Your task to perform on an android device: change the clock display to analog Image 0: 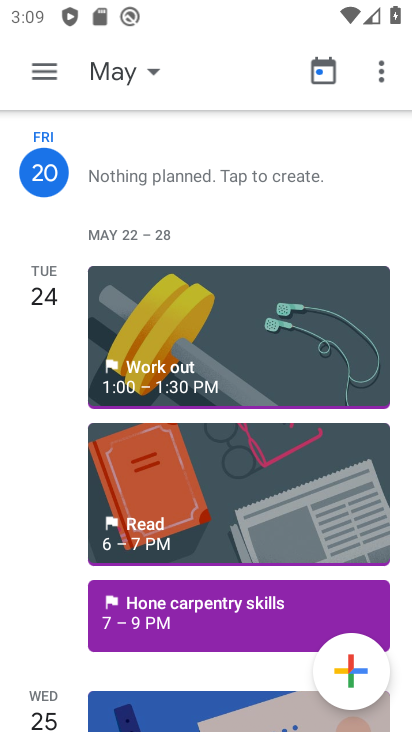
Step 0: press home button
Your task to perform on an android device: change the clock display to analog Image 1: 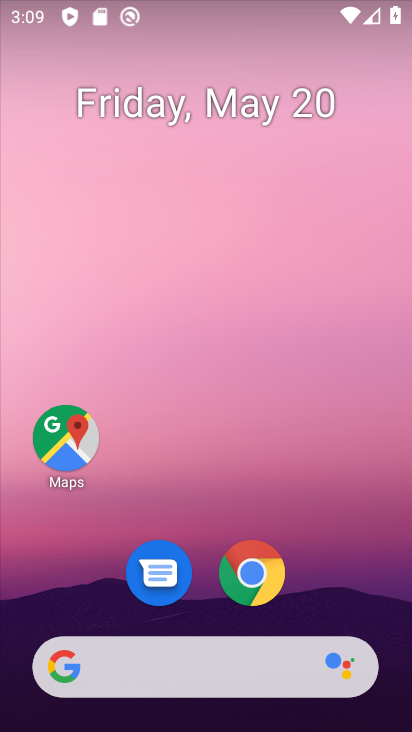
Step 1: drag from (232, 646) to (317, 73)
Your task to perform on an android device: change the clock display to analog Image 2: 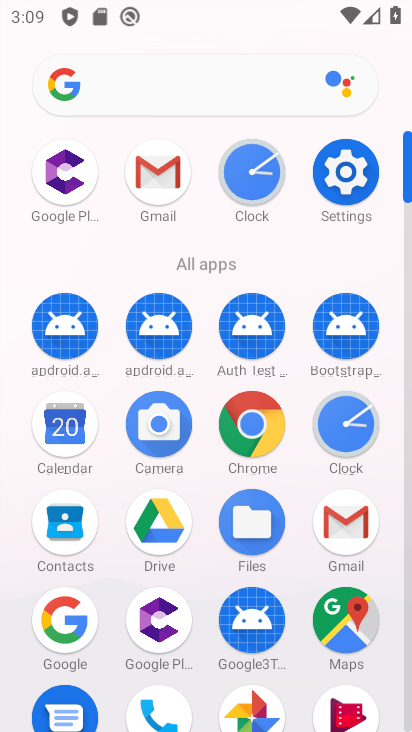
Step 2: click (350, 411)
Your task to perform on an android device: change the clock display to analog Image 3: 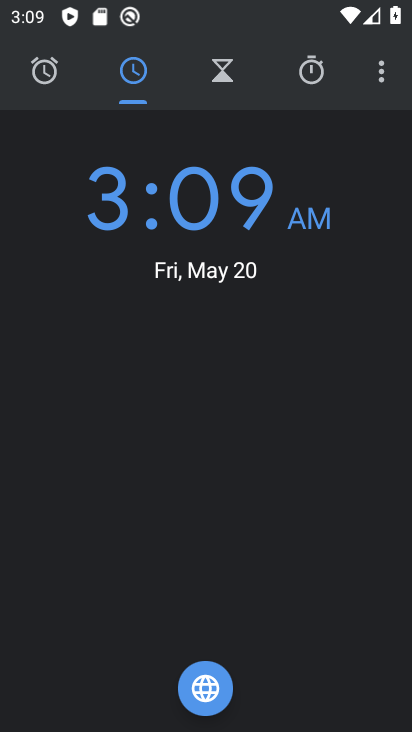
Step 3: click (379, 62)
Your task to perform on an android device: change the clock display to analog Image 4: 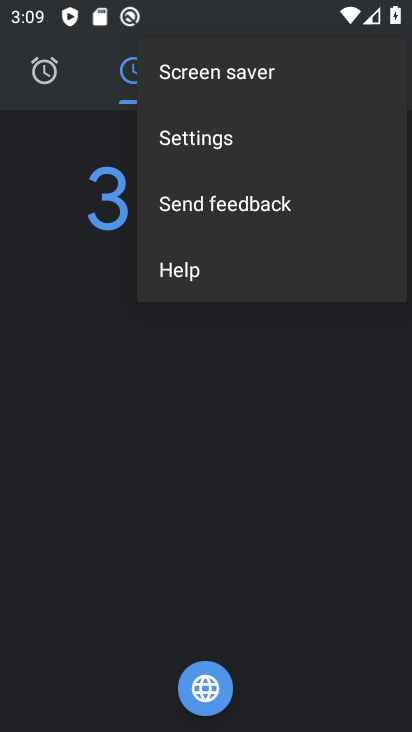
Step 4: click (156, 154)
Your task to perform on an android device: change the clock display to analog Image 5: 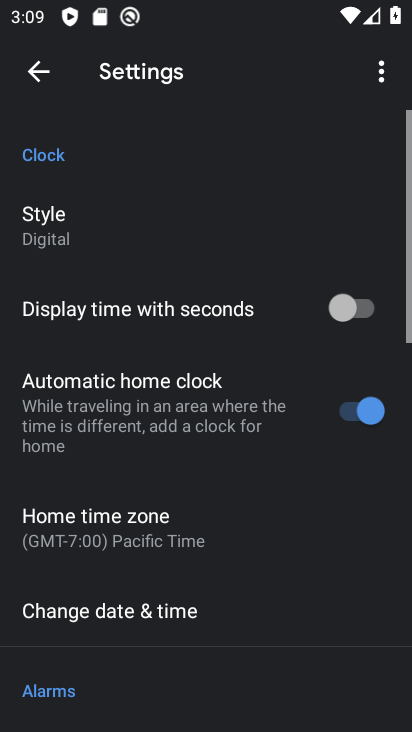
Step 5: click (77, 215)
Your task to perform on an android device: change the clock display to analog Image 6: 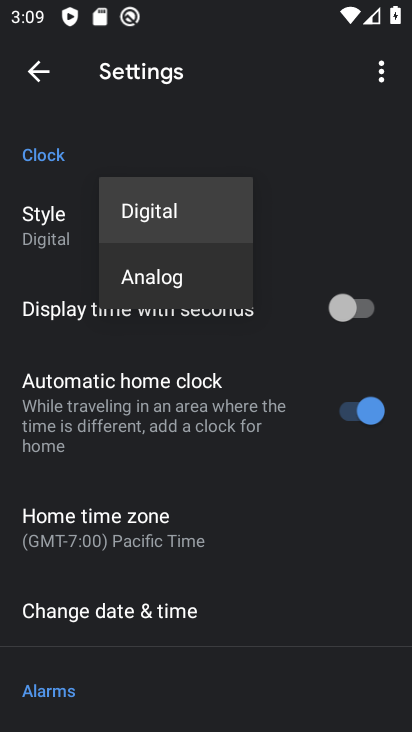
Step 6: click (146, 262)
Your task to perform on an android device: change the clock display to analog Image 7: 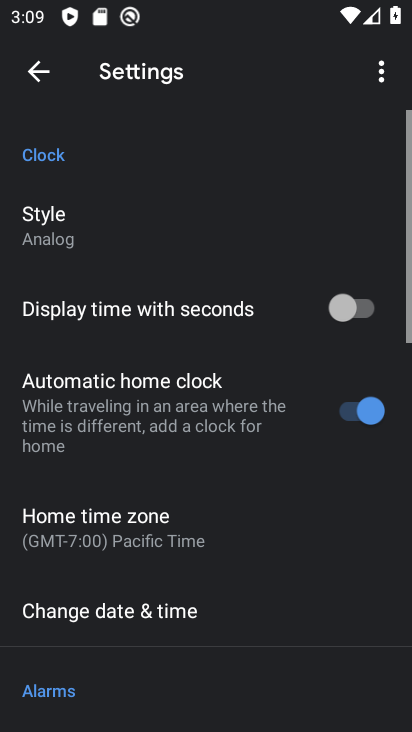
Step 7: task complete